Your task to perform on an android device: uninstall "Google Calendar" Image 0: 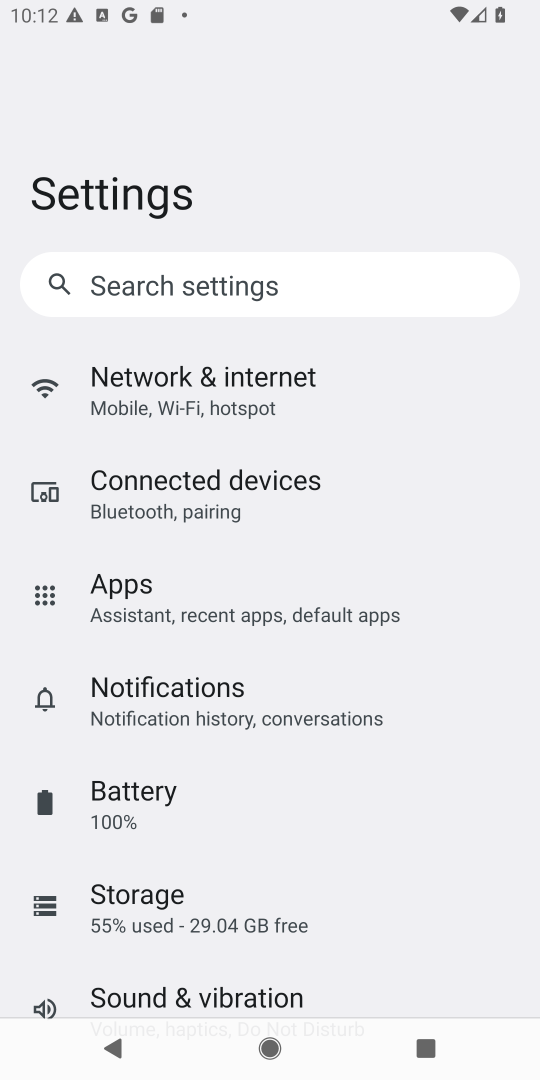
Step 0: press home button
Your task to perform on an android device: uninstall "Google Calendar" Image 1: 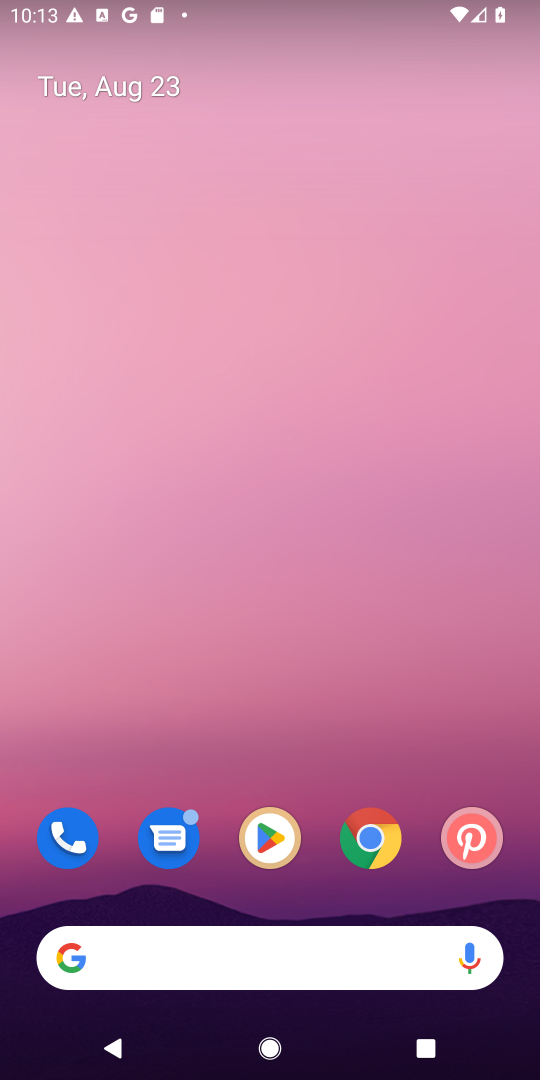
Step 1: click (275, 856)
Your task to perform on an android device: uninstall "Google Calendar" Image 2: 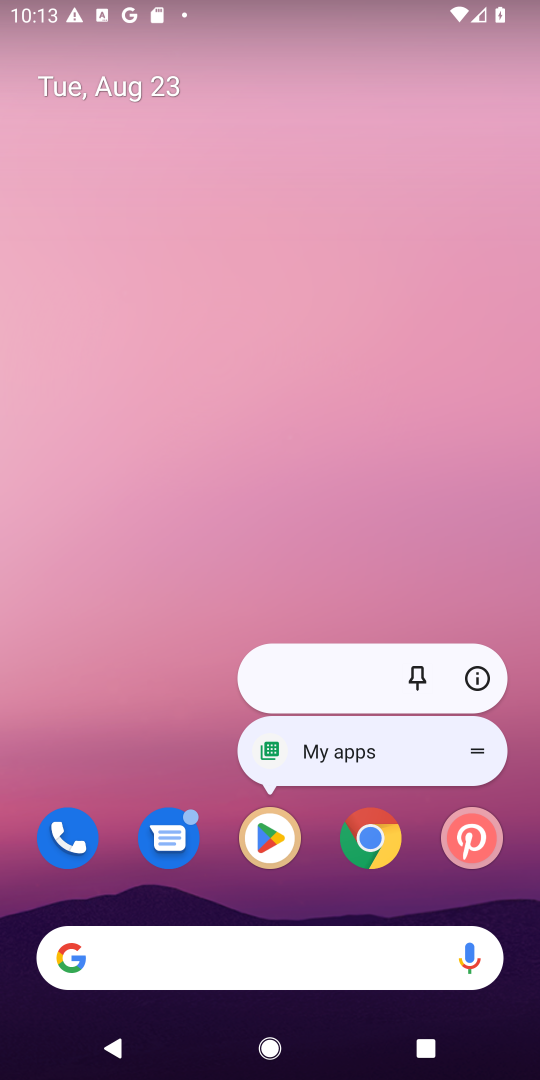
Step 2: click (277, 854)
Your task to perform on an android device: uninstall "Google Calendar" Image 3: 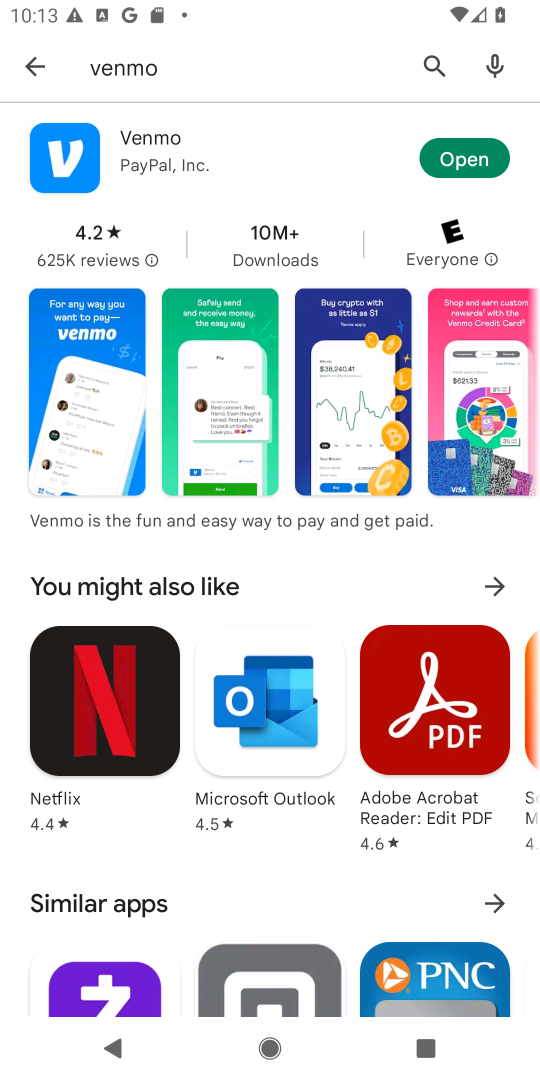
Step 3: click (440, 61)
Your task to perform on an android device: uninstall "Google Calendar" Image 4: 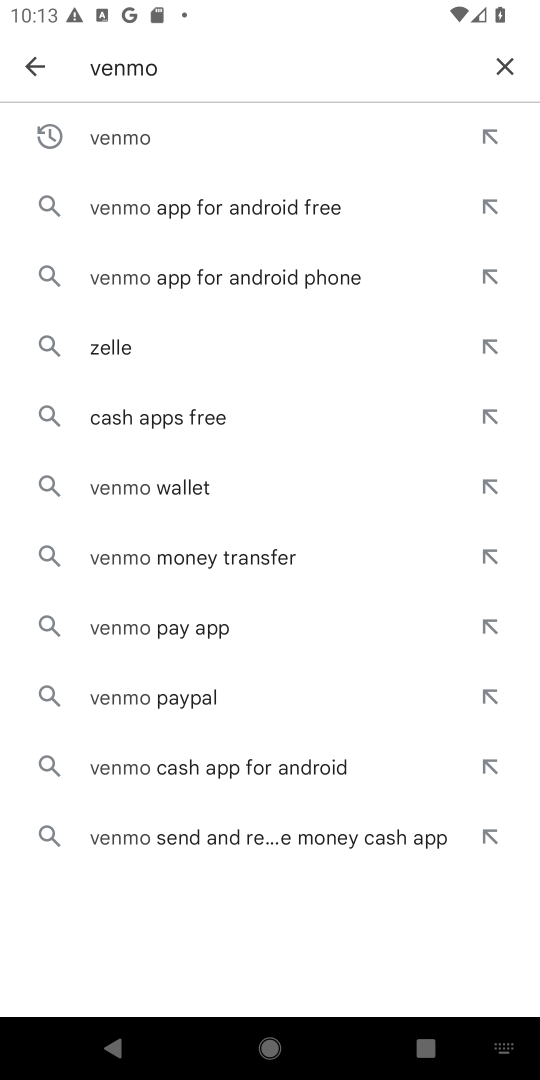
Step 4: click (493, 66)
Your task to perform on an android device: uninstall "Google Calendar" Image 5: 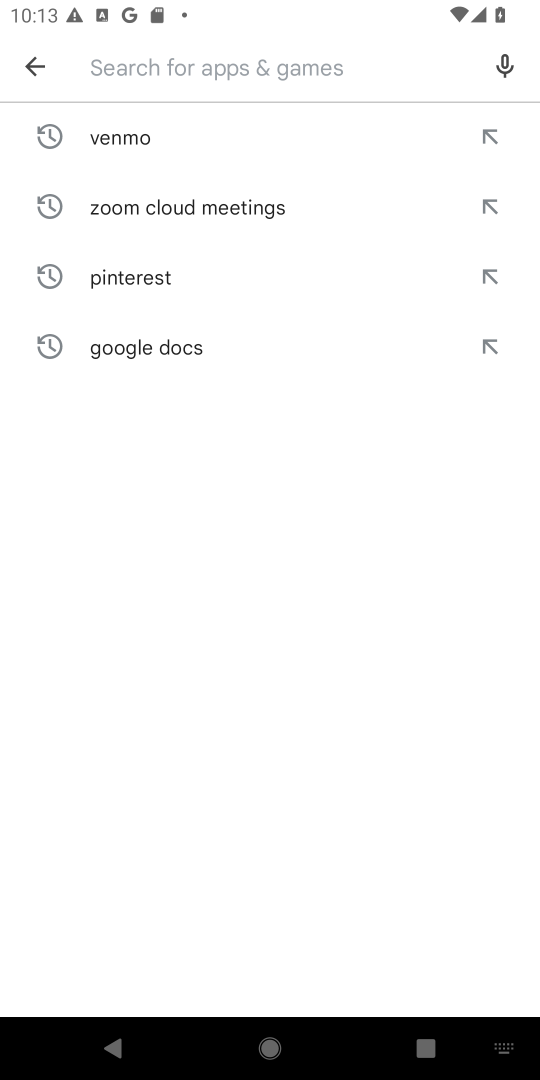
Step 5: type "Google Calendar"
Your task to perform on an android device: uninstall "Google Calendar" Image 6: 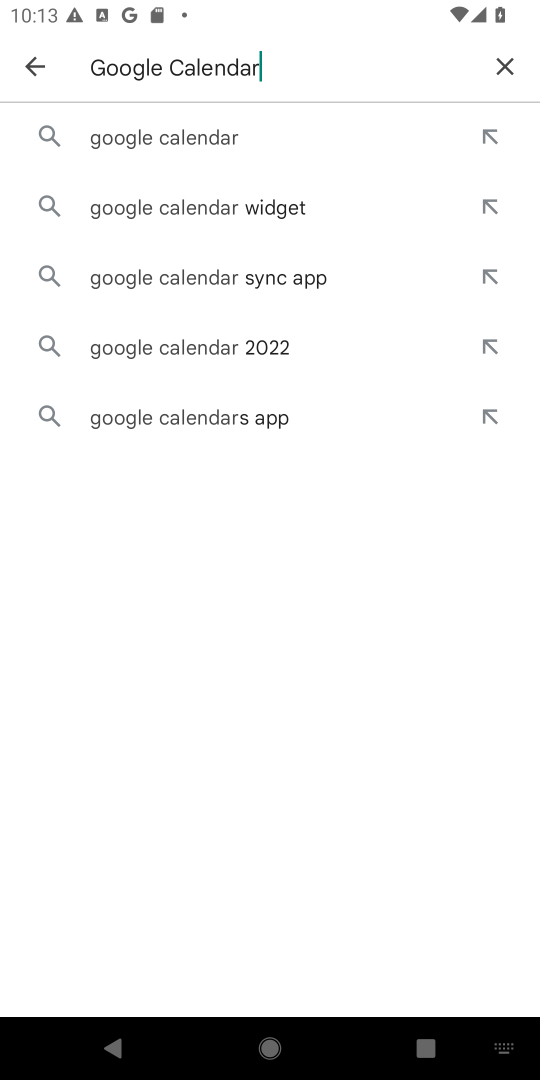
Step 6: click (217, 145)
Your task to perform on an android device: uninstall "Google Calendar" Image 7: 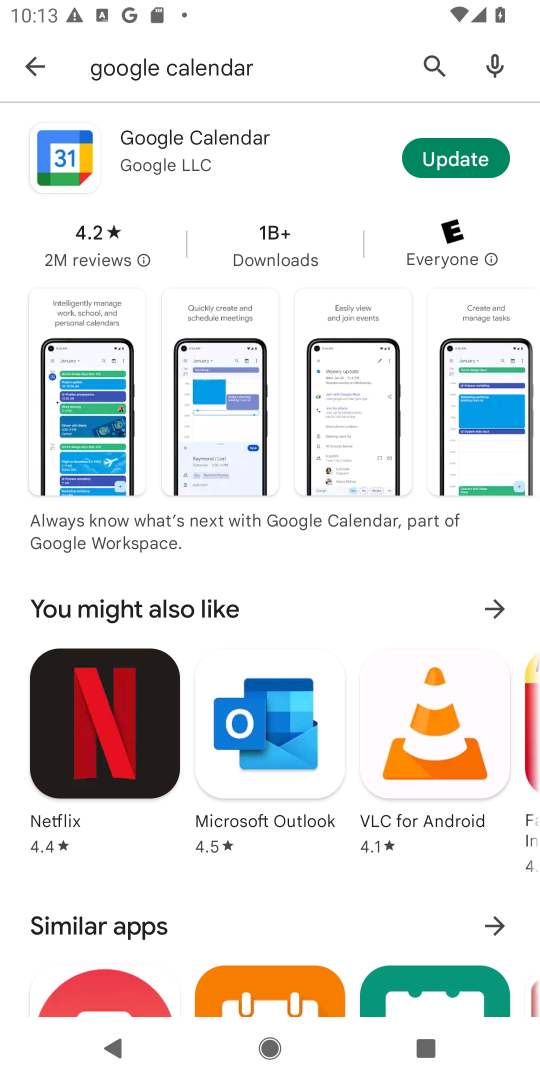
Step 7: click (246, 139)
Your task to perform on an android device: uninstall "Google Calendar" Image 8: 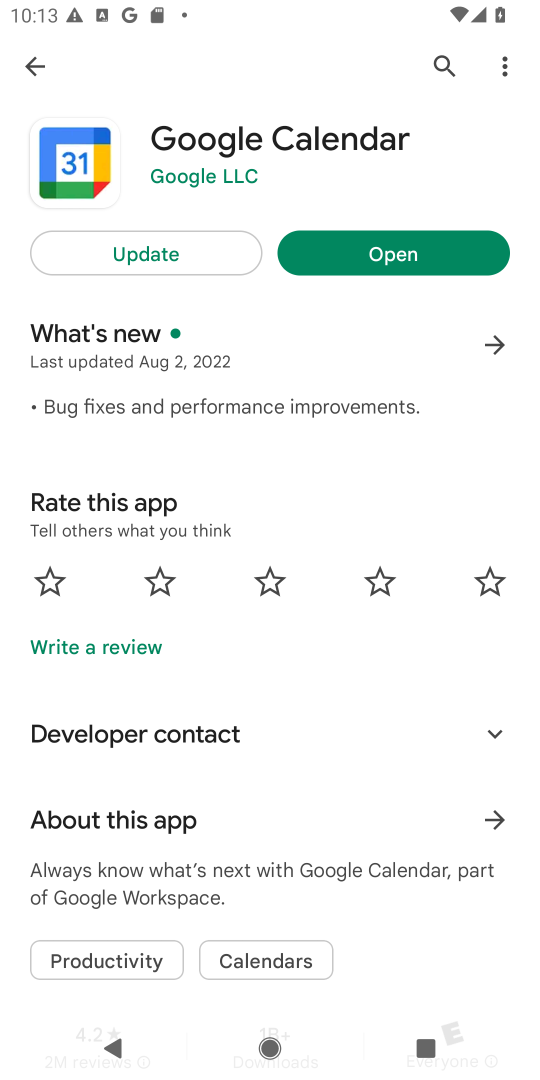
Step 8: click (207, 257)
Your task to perform on an android device: uninstall "Google Calendar" Image 9: 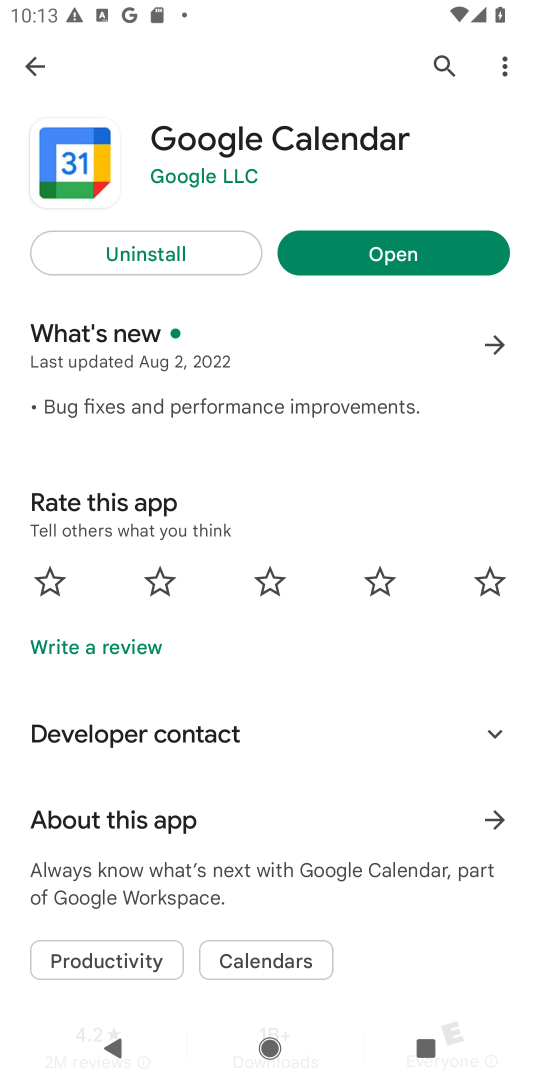
Step 9: click (207, 257)
Your task to perform on an android device: uninstall "Google Calendar" Image 10: 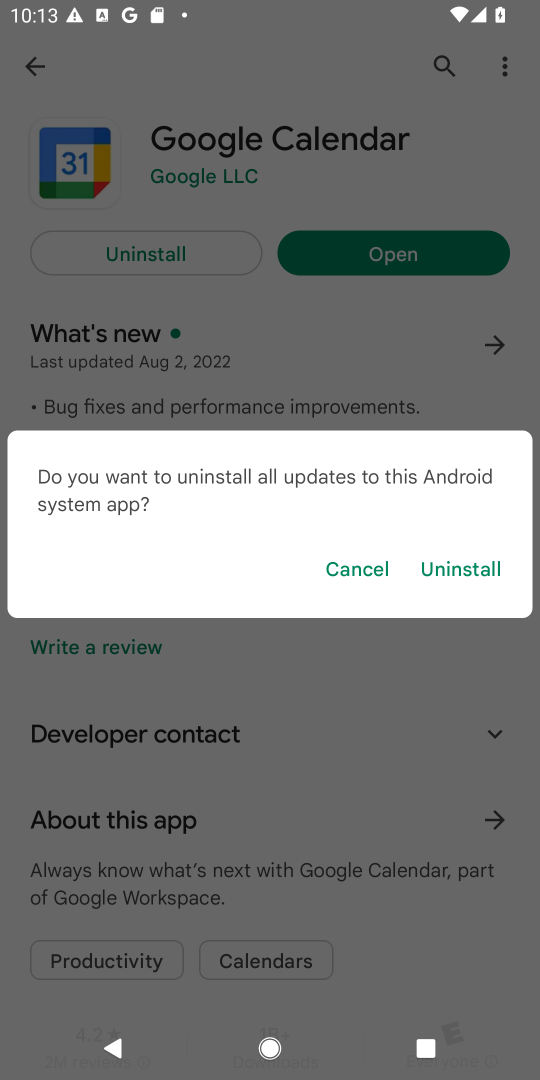
Step 10: click (485, 557)
Your task to perform on an android device: uninstall "Google Calendar" Image 11: 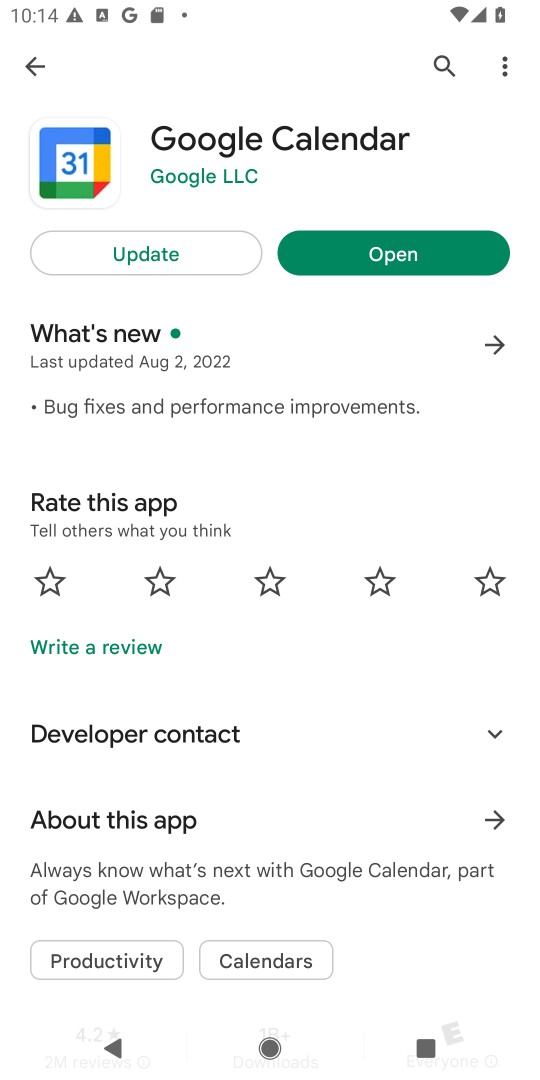
Step 11: task complete